Your task to perform on an android device: Play the last video I watched on Youtube Image 0: 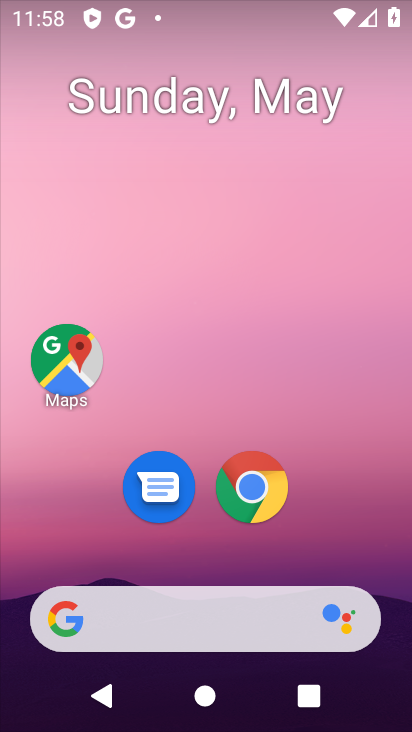
Step 0: drag from (201, 551) to (227, 39)
Your task to perform on an android device: Play the last video I watched on Youtube Image 1: 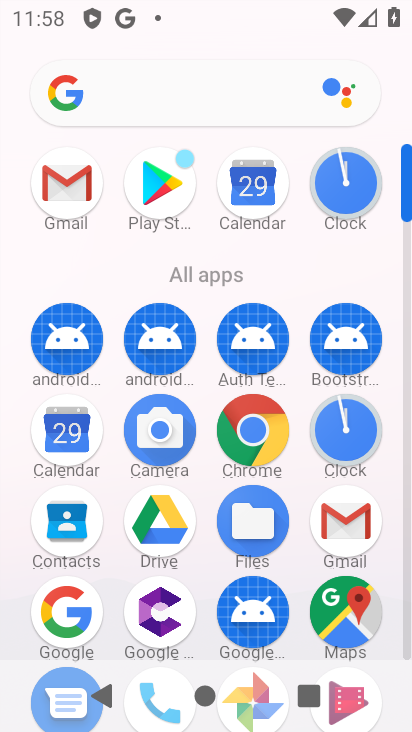
Step 1: drag from (282, 575) to (243, 213)
Your task to perform on an android device: Play the last video I watched on Youtube Image 2: 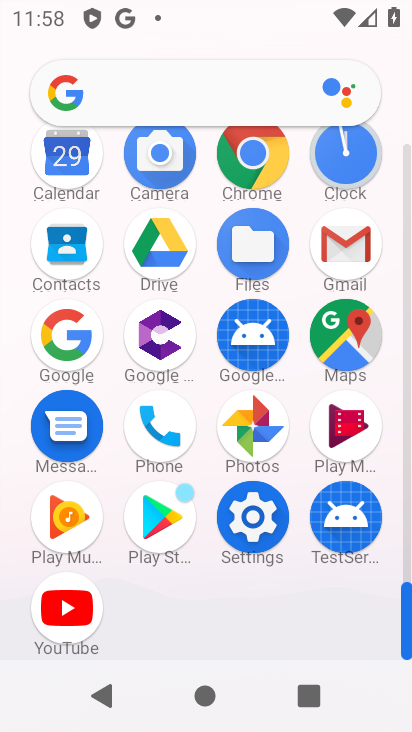
Step 2: click (50, 614)
Your task to perform on an android device: Play the last video I watched on Youtube Image 3: 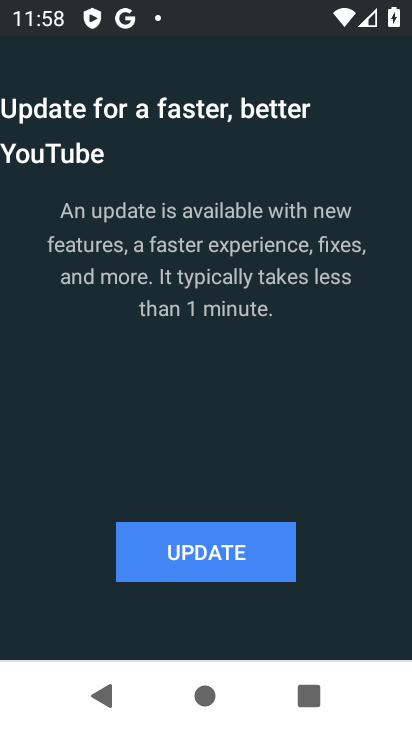
Step 3: click (271, 553)
Your task to perform on an android device: Play the last video I watched on Youtube Image 4: 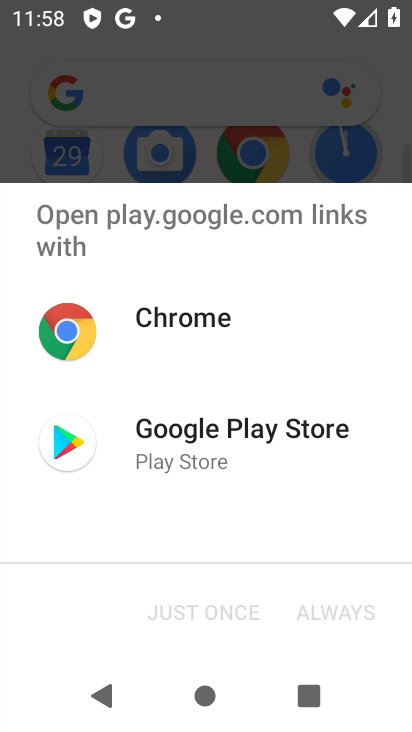
Step 4: drag from (102, 472) to (144, 472)
Your task to perform on an android device: Play the last video I watched on Youtube Image 5: 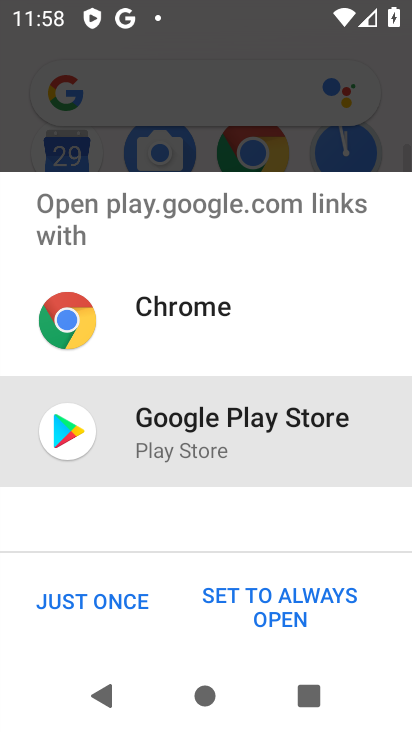
Step 5: click (101, 607)
Your task to perform on an android device: Play the last video I watched on Youtube Image 6: 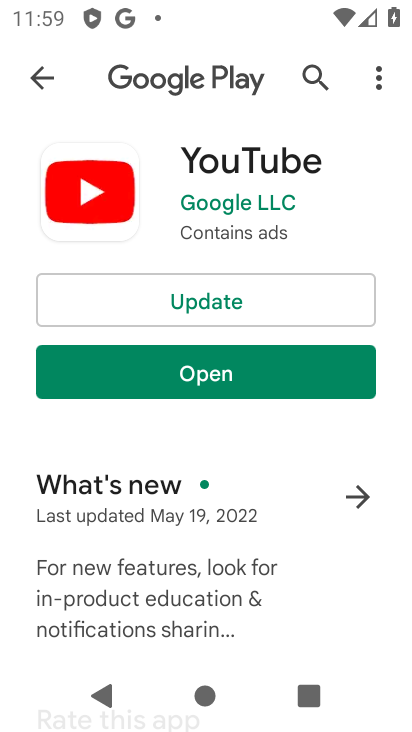
Step 6: click (226, 291)
Your task to perform on an android device: Play the last video I watched on Youtube Image 7: 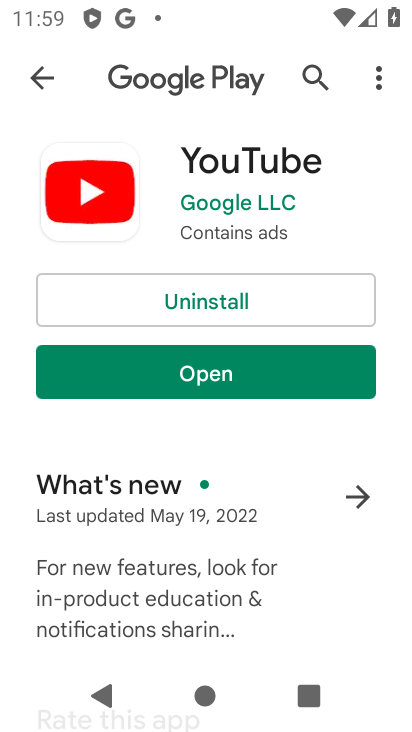
Step 7: click (166, 365)
Your task to perform on an android device: Play the last video I watched on Youtube Image 8: 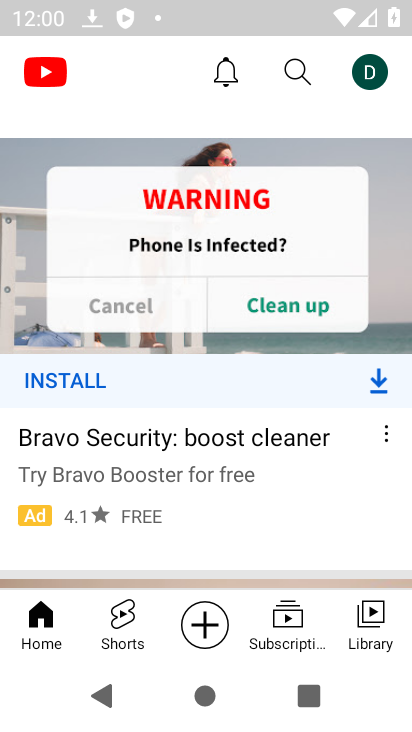
Step 8: click (362, 627)
Your task to perform on an android device: Play the last video I watched on Youtube Image 9: 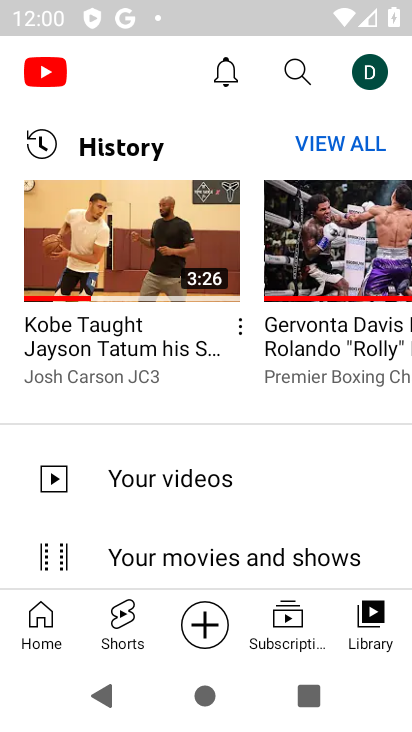
Step 9: click (108, 259)
Your task to perform on an android device: Play the last video I watched on Youtube Image 10: 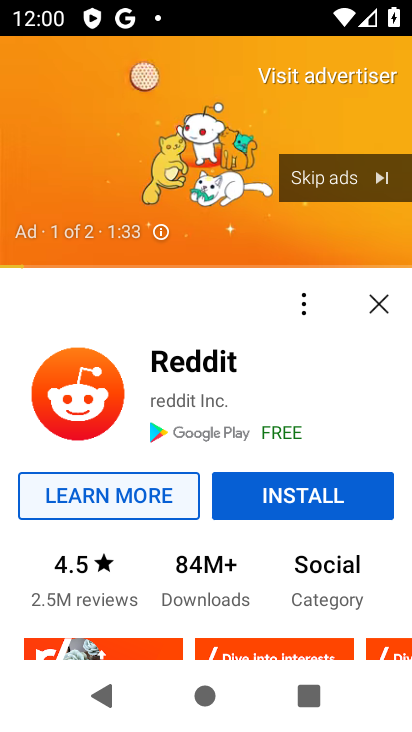
Step 10: task complete